Your task to perform on an android device: toggle data saver in the chrome app Image 0: 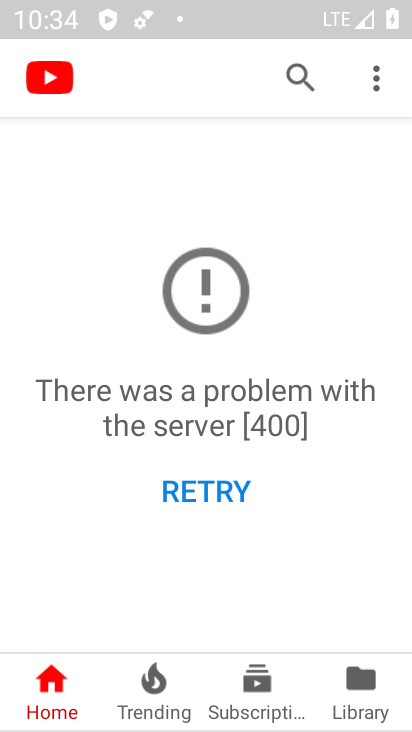
Step 0: press back button
Your task to perform on an android device: toggle data saver in the chrome app Image 1: 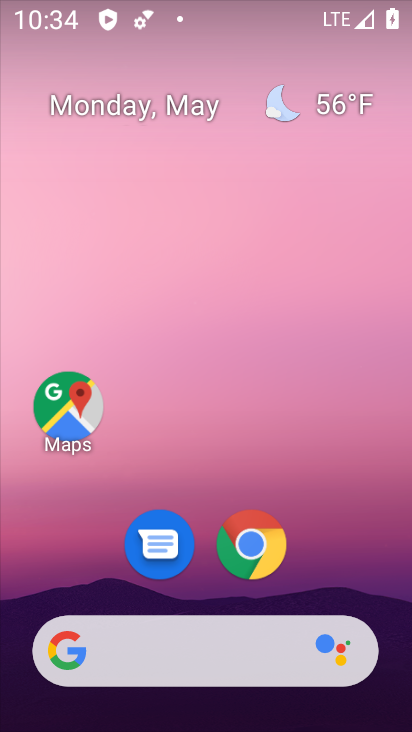
Step 1: click (249, 545)
Your task to perform on an android device: toggle data saver in the chrome app Image 2: 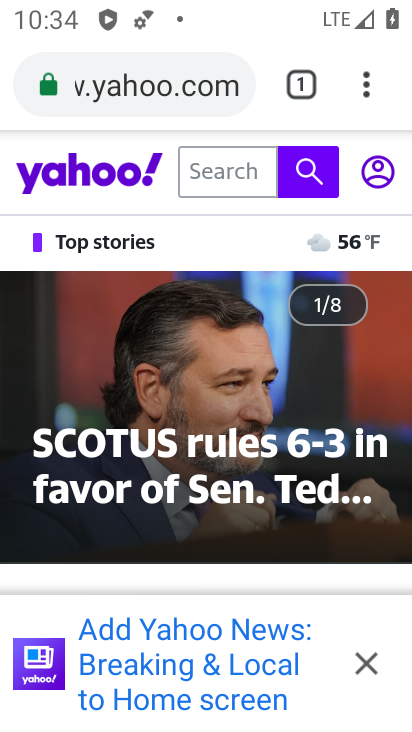
Step 2: click (366, 83)
Your task to perform on an android device: toggle data saver in the chrome app Image 3: 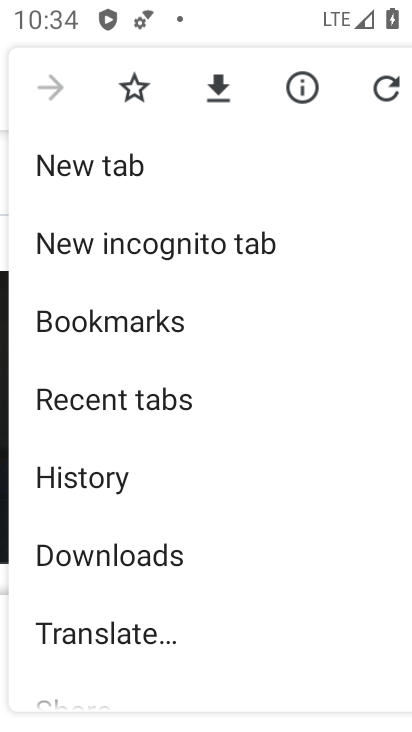
Step 3: drag from (125, 533) to (170, 445)
Your task to perform on an android device: toggle data saver in the chrome app Image 4: 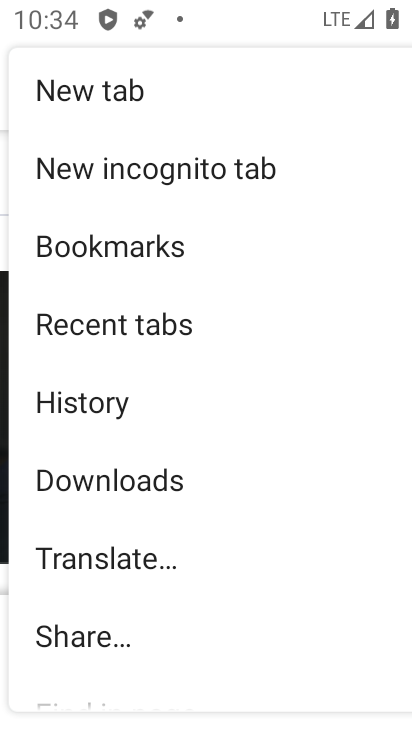
Step 4: drag from (129, 567) to (172, 500)
Your task to perform on an android device: toggle data saver in the chrome app Image 5: 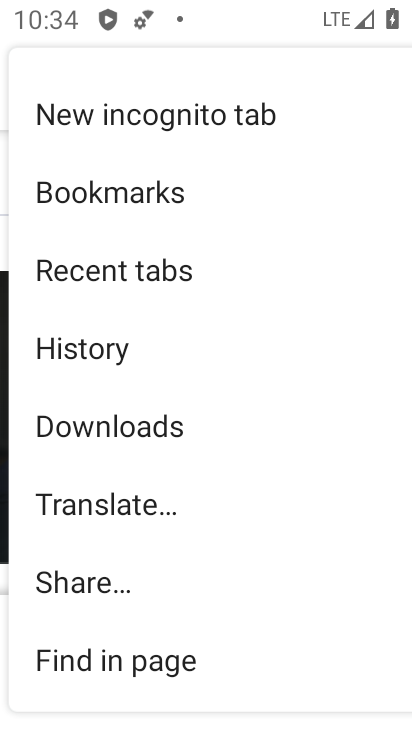
Step 5: drag from (138, 584) to (180, 505)
Your task to perform on an android device: toggle data saver in the chrome app Image 6: 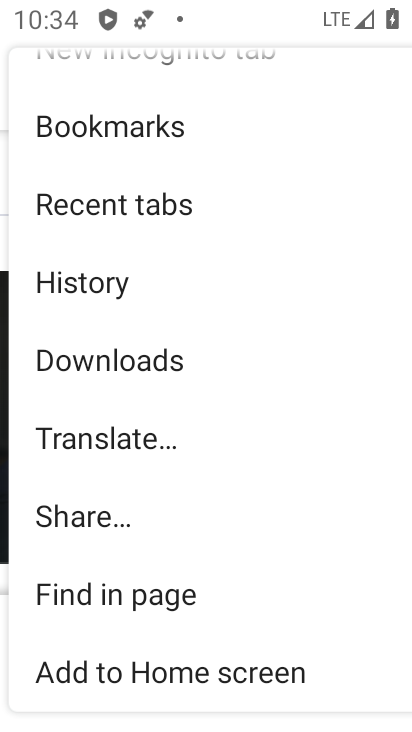
Step 6: drag from (134, 629) to (195, 526)
Your task to perform on an android device: toggle data saver in the chrome app Image 7: 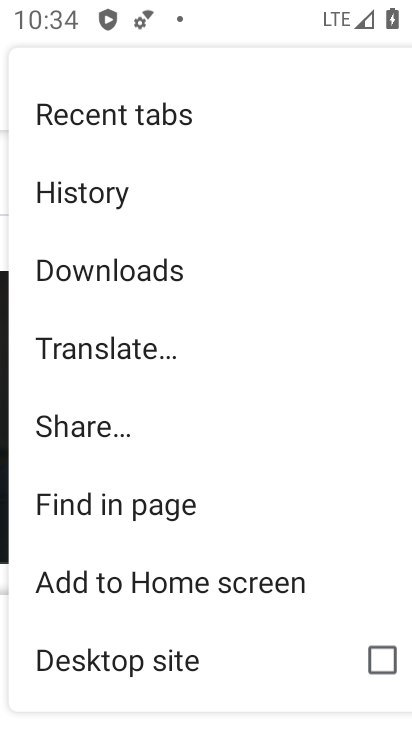
Step 7: drag from (140, 613) to (213, 504)
Your task to perform on an android device: toggle data saver in the chrome app Image 8: 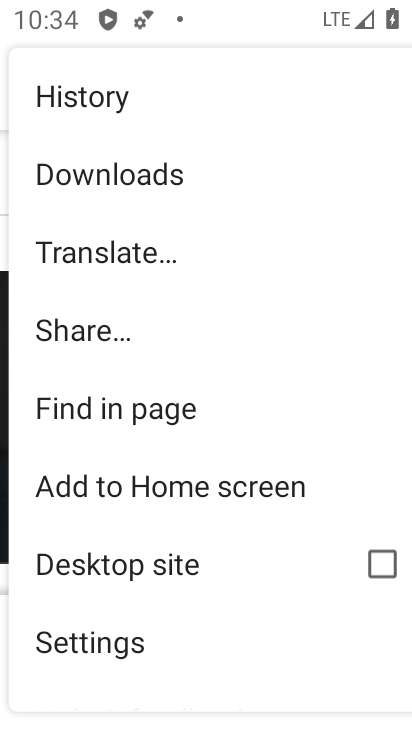
Step 8: drag from (150, 606) to (230, 475)
Your task to perform on an android device: toggle data saver in the chrome app Image 9: 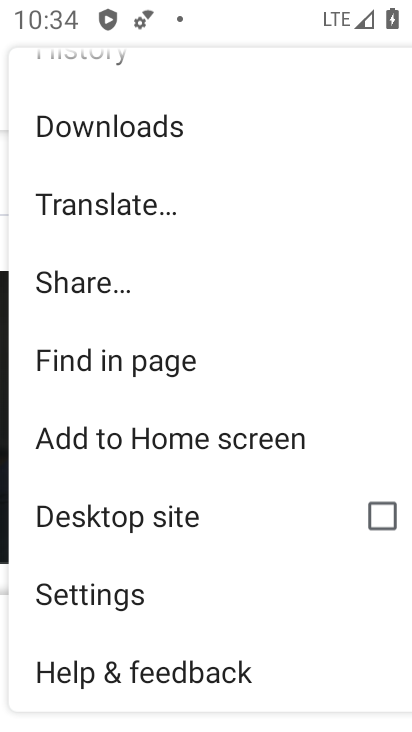
Step 9: click (111, 590)
Your task to perform on an android device: toggle data saver in the chrome app Image 10: 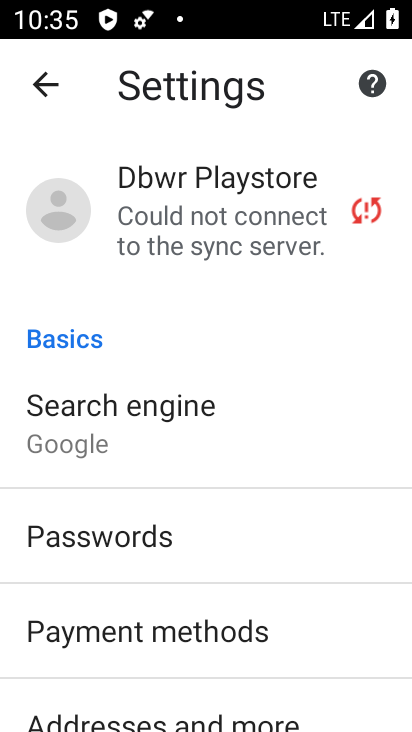
Step 10: drag from (165, 567) to (218, 481)
Your task to perform on an android device: toggle data saver in the chrome app Image 11: 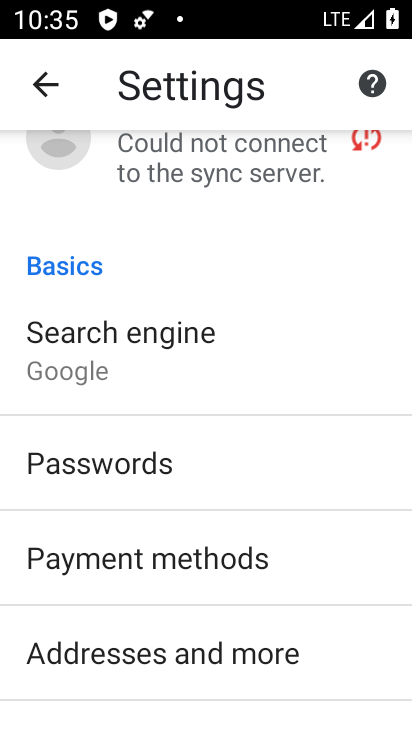
Step 11: drag from (154, 610) to (238, 498)
Your task to perform on an android device: toggle data saver in the chrome app Image 12: 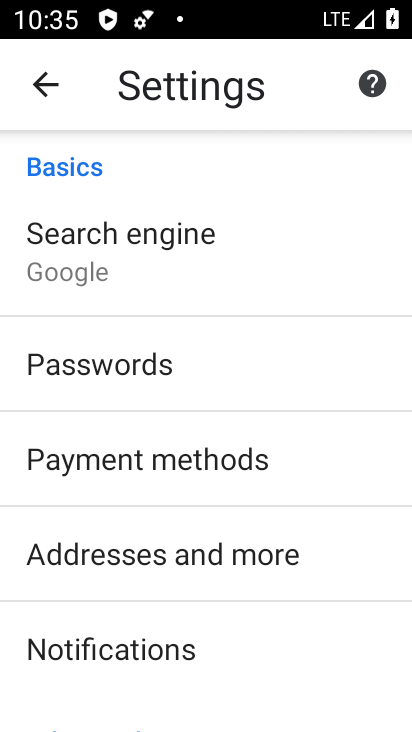
Step 12: drag from (157, 615) to (261, 478)
Your task to perform on an android device: toggle data saver in the chrome app Image 13: 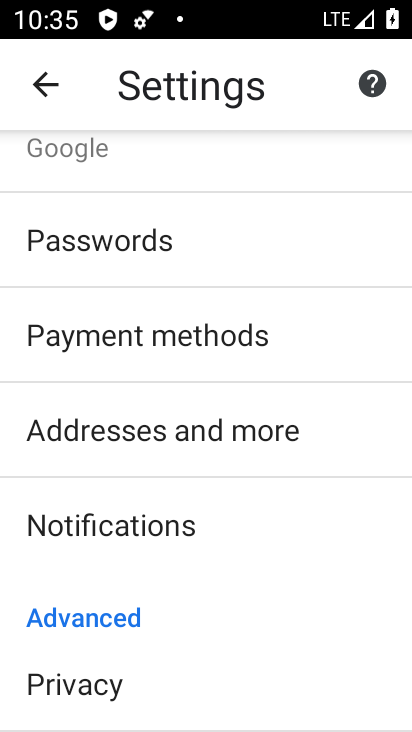
Step 13: drag from (163, 647) to (248, 513)
Your task to perform on an android device: toggle data saver in the chrome app Image 14: 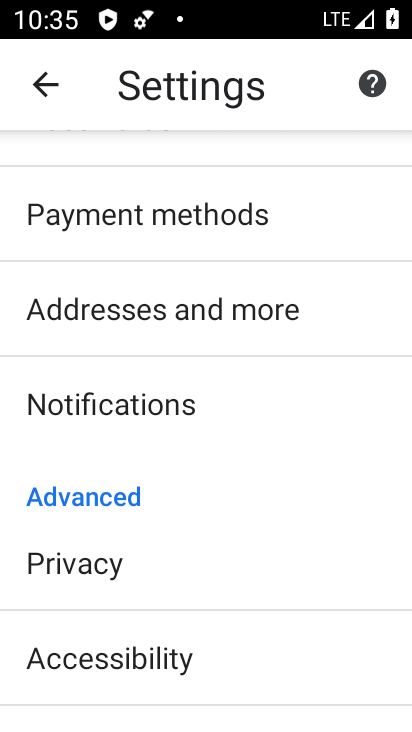
Step 14: drag from (184, 610) to (260, 502)
Your task to perform on an android device: toggle data saver in the chrome app Image 15: 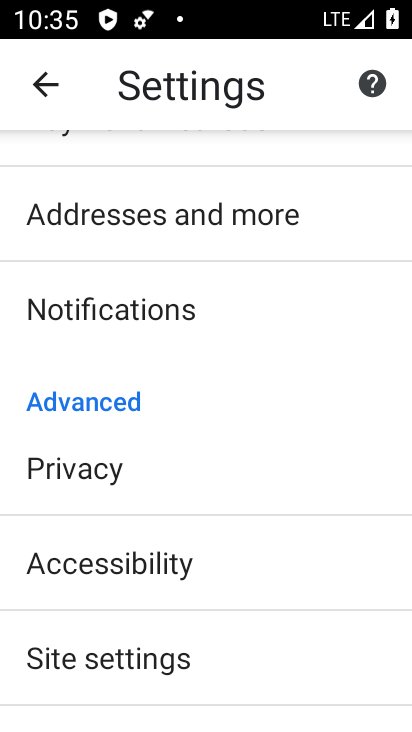
Step 15: drag from (189, 597) to (255, 519)
Your task to perform on an android device: toggle data saver in the chrome app Image 16: 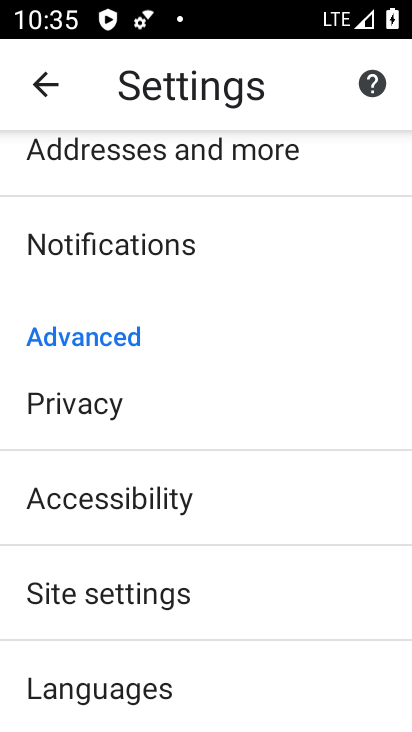
Step 16: drag from (177, 636) to (253, 543)
Your task to perform on an android device: toggle data saver in the chrome app Image 17: 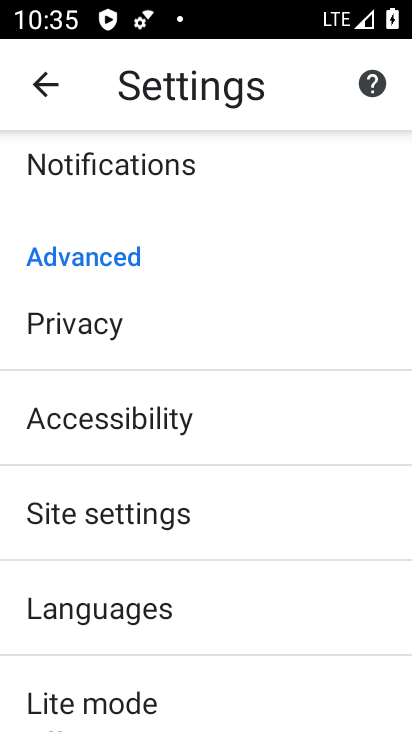
Step 17: drag from (153, 667) to (226, 571)
Your task to perform on an android device: toggle data saver in the chrome app Image 18: 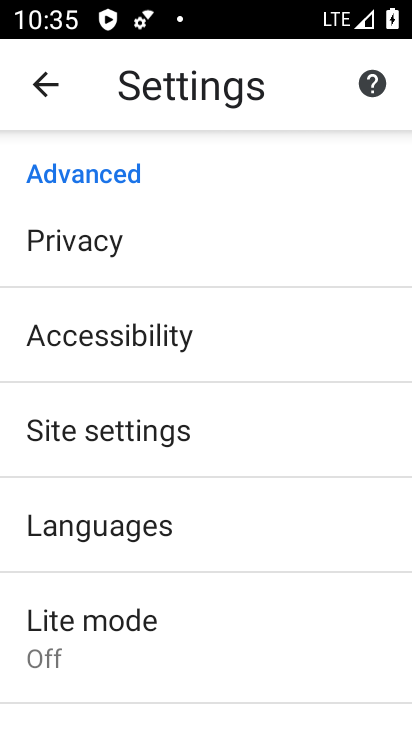
Step 18: click (133, 610)
Your task to perform on an android device: toggle data saver in the chrome app Image 19: 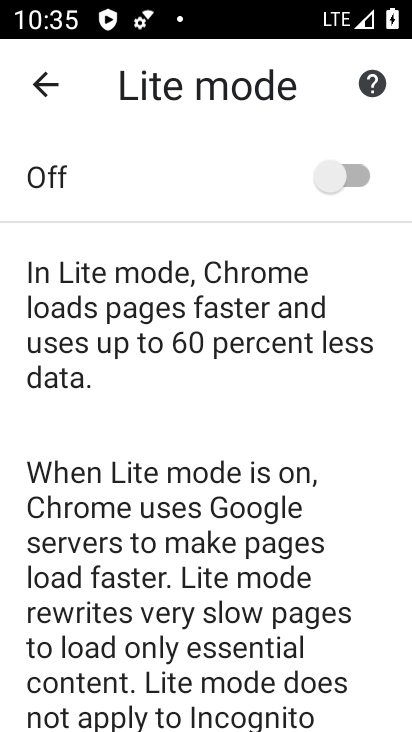
Step 19: click (319, 181)
Your task to perform on an android device: toggle data saver in the chrome app Image 20: 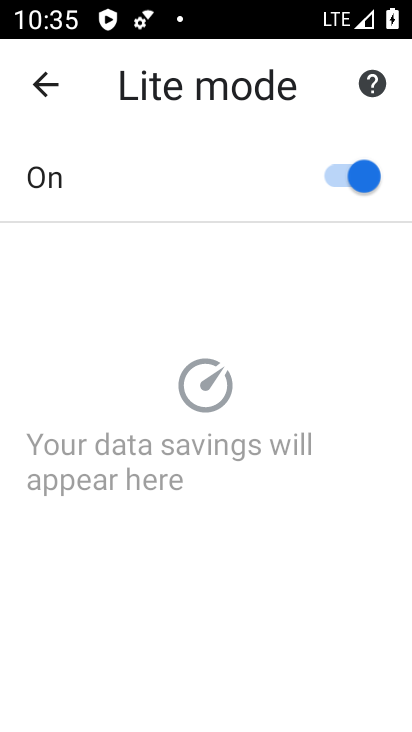
Step 20: task complete